Your task to perform on an android device: turn pop-ups on in chrome Image 0: 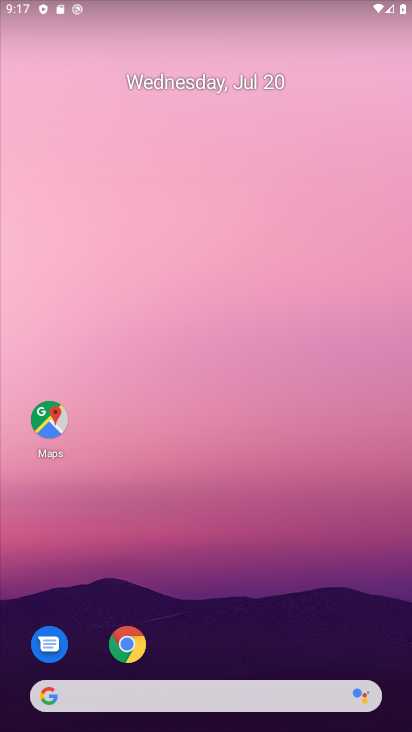
Step 0: drag from (277, 357) to (288, 185)
Your task to perform on an android device: turn pop-ups on in chrome Image 1: 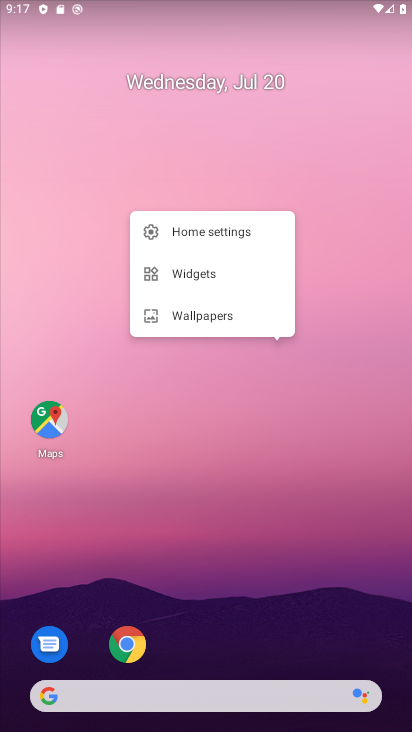
Step 1: click (265, 618)
Your task to perform on an android device: turn pop-ups on in chrome Image 2: 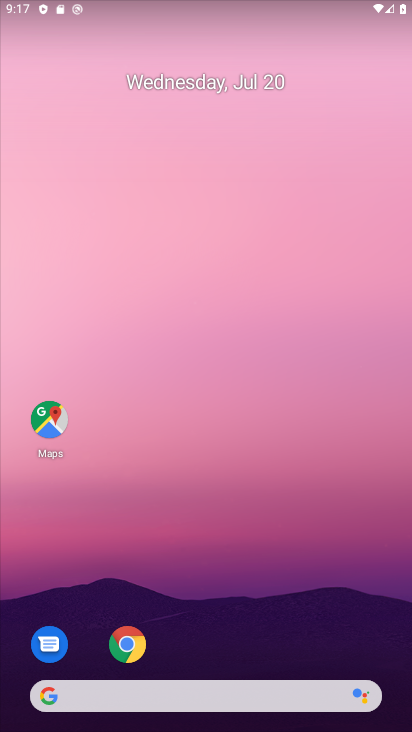
Step 2: click (124, 641)
Your task to perform on an android device: turn pop-ups on in chrome Image 3: 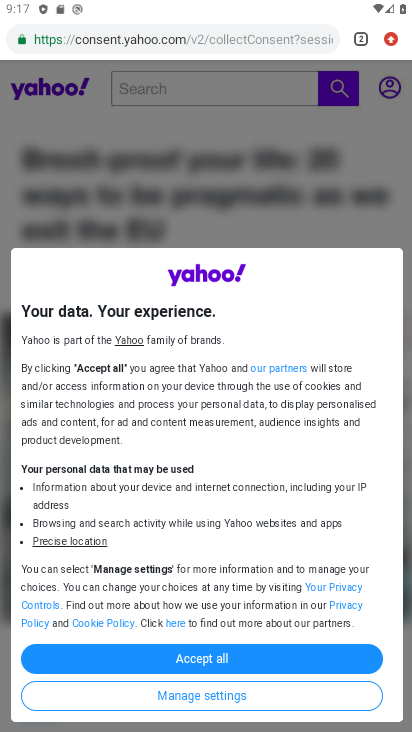
Step 3: task complete